Your task to perform on an android device: open app "Adobe Express: Graphic Design" Image 0: 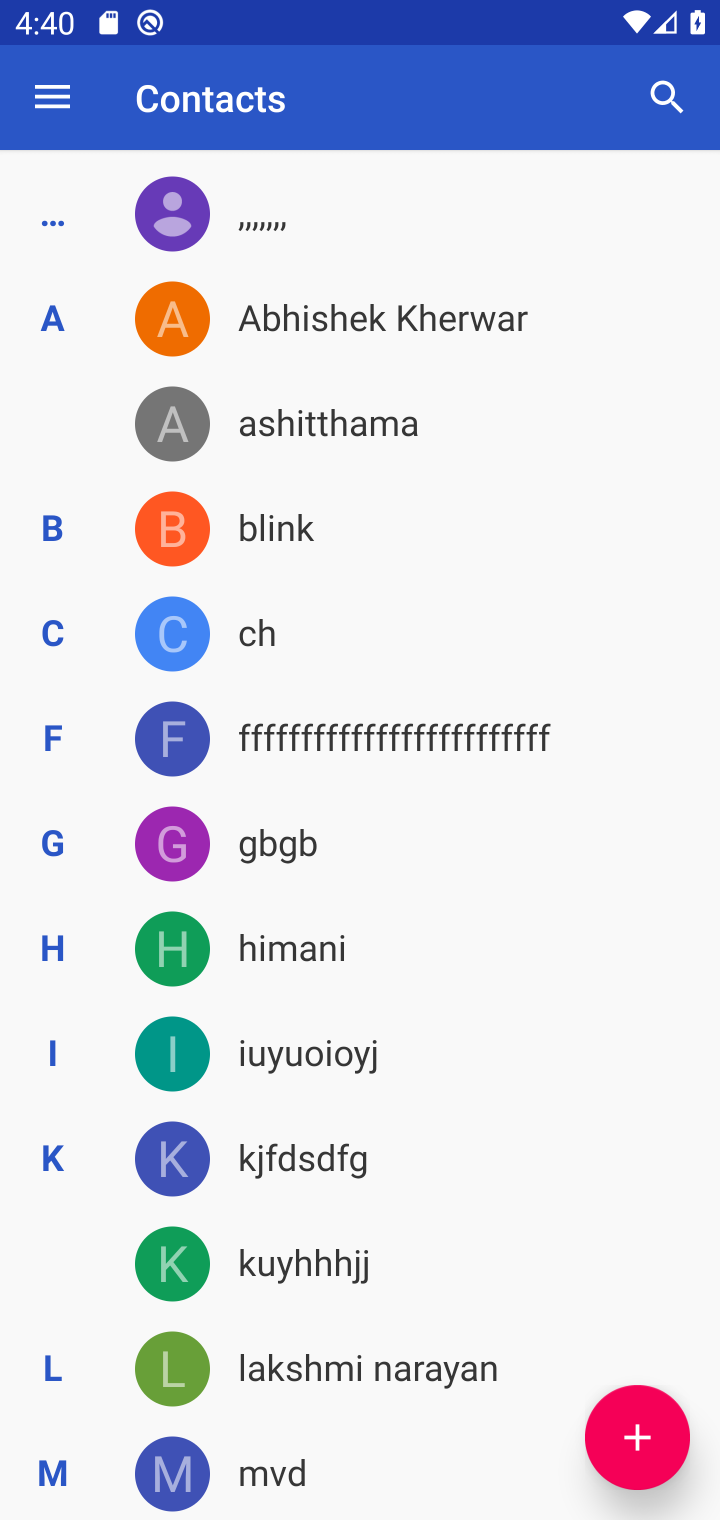
Step 0: press home button
Your task to perform on an android device: open app "Adobe Express: Graphic Design" Image 1: 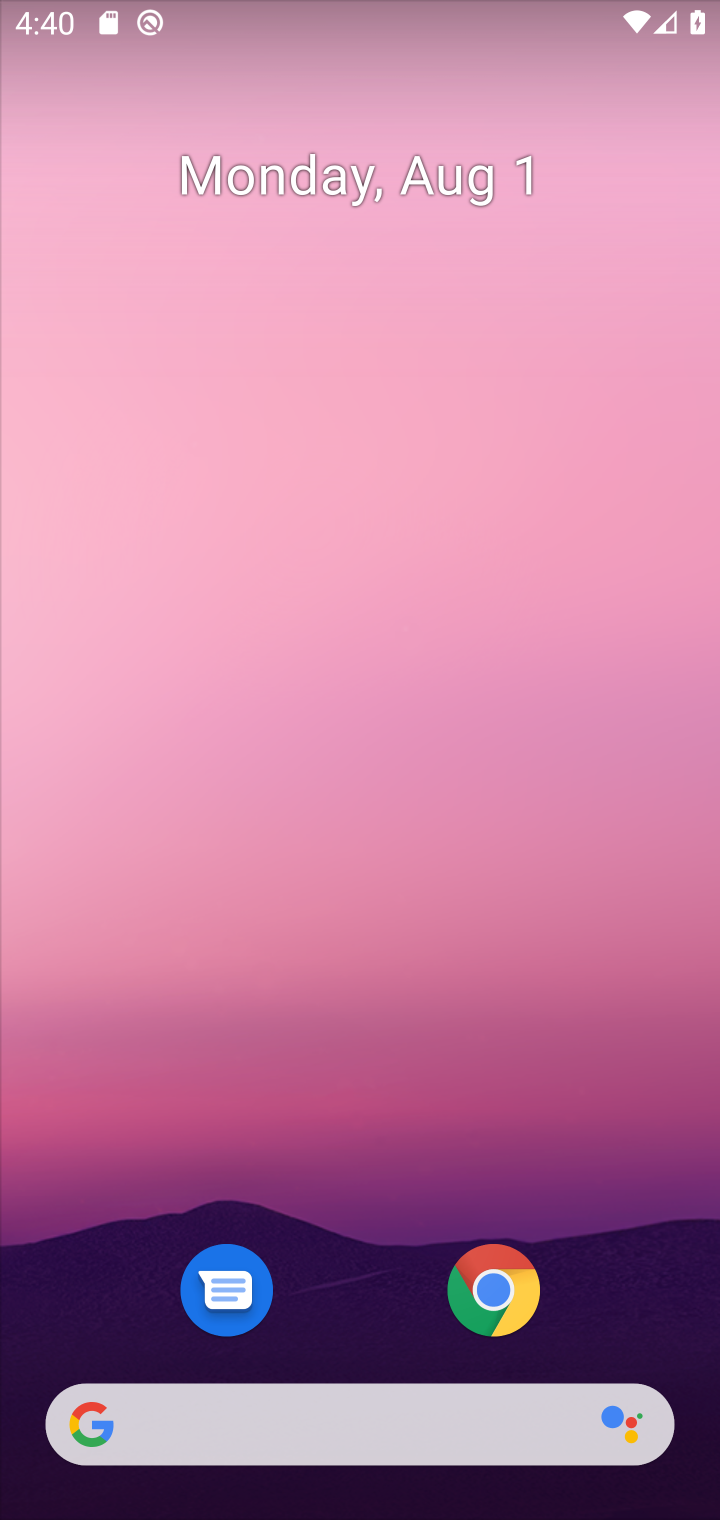
Step 1: drag from (491, 1425) to (478, 563)
Your task to perform on an android device: open app "Adobe Express: Graphic Design" Image 2: 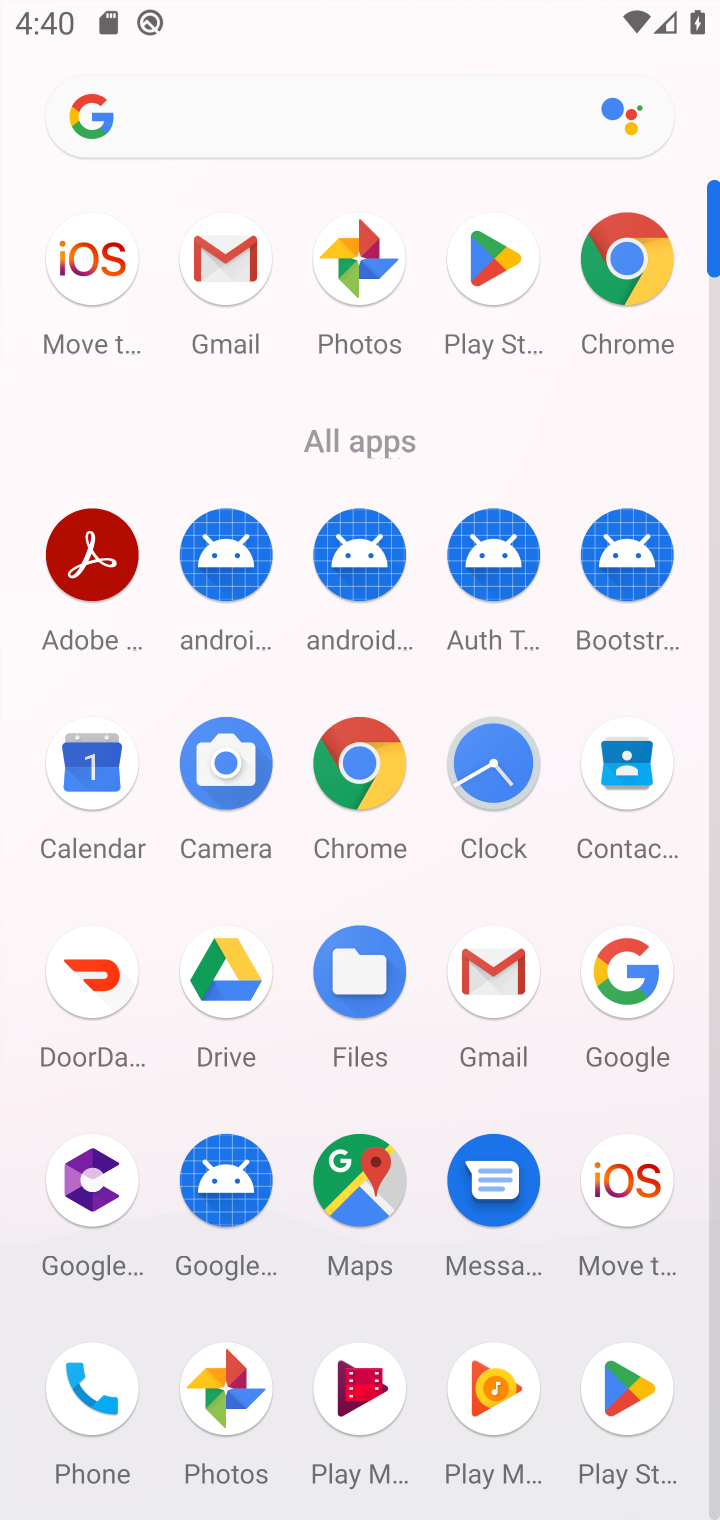
Step 2: click (483, 247)
Your task to perform on an android device: open app "Adobe Express: Graphic Design" Image 3: 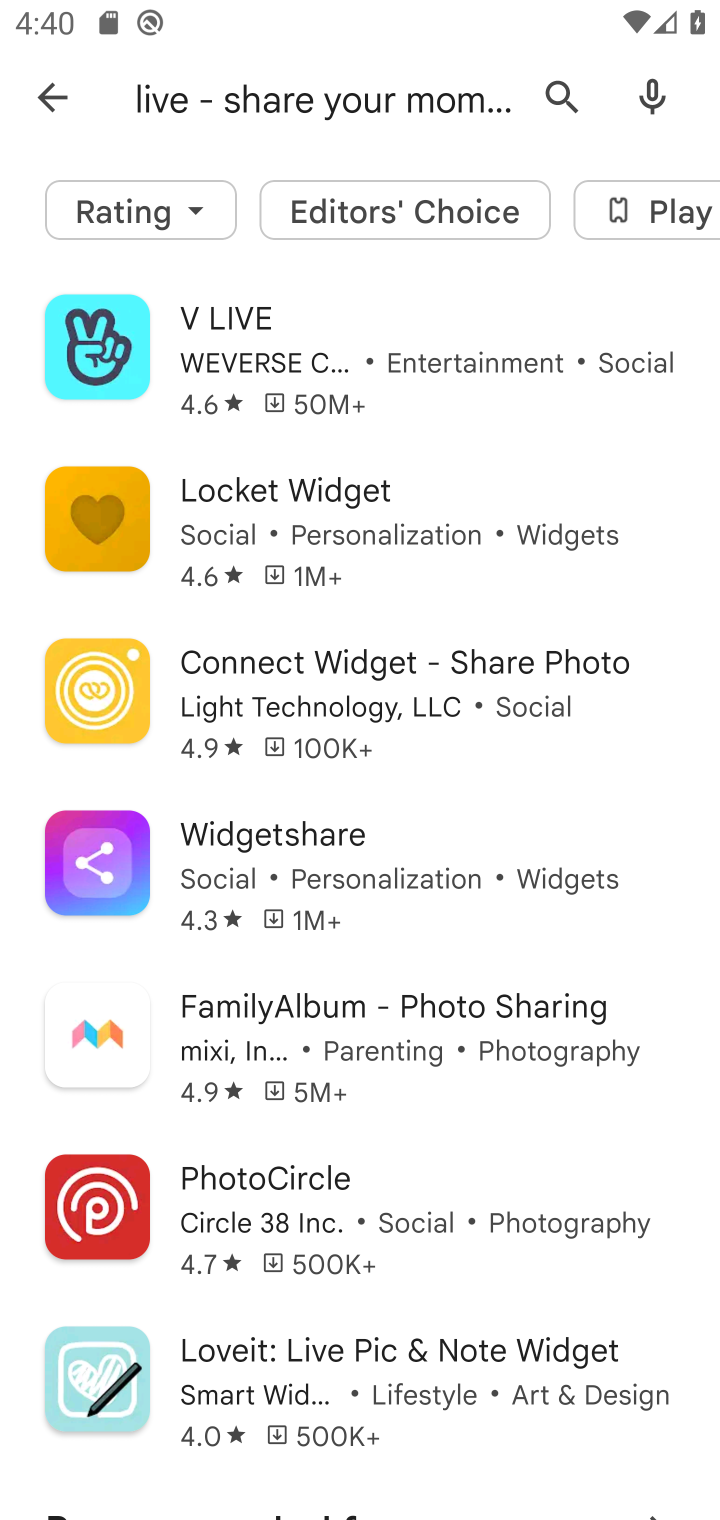
Step 3: click (563, 76)
Your task to perform on an android device: open app "Adobe Express: Graphic Design" Image 4: 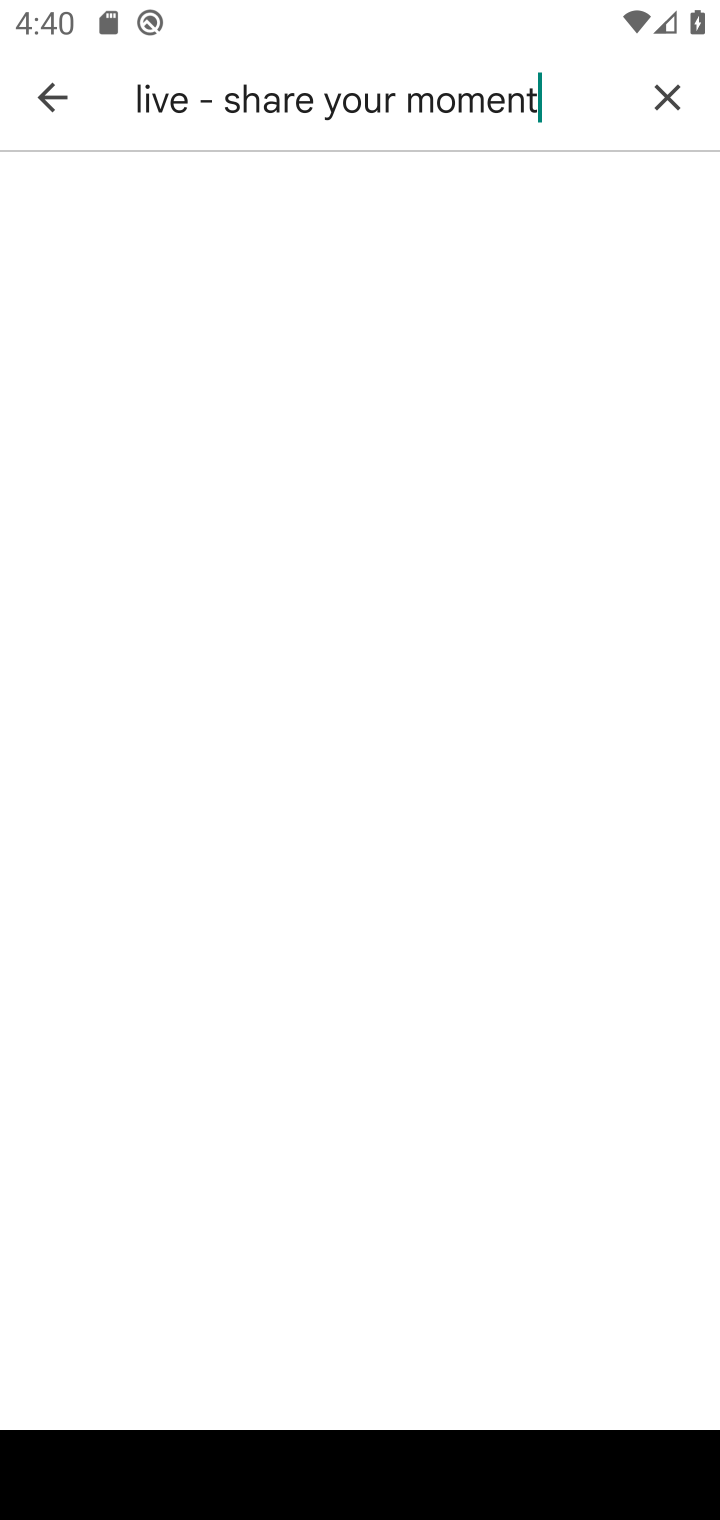
Step 4: click (664, 103)
Your task to perform on an android device: open app "Adobe Express: Graphic Design" Image 5: 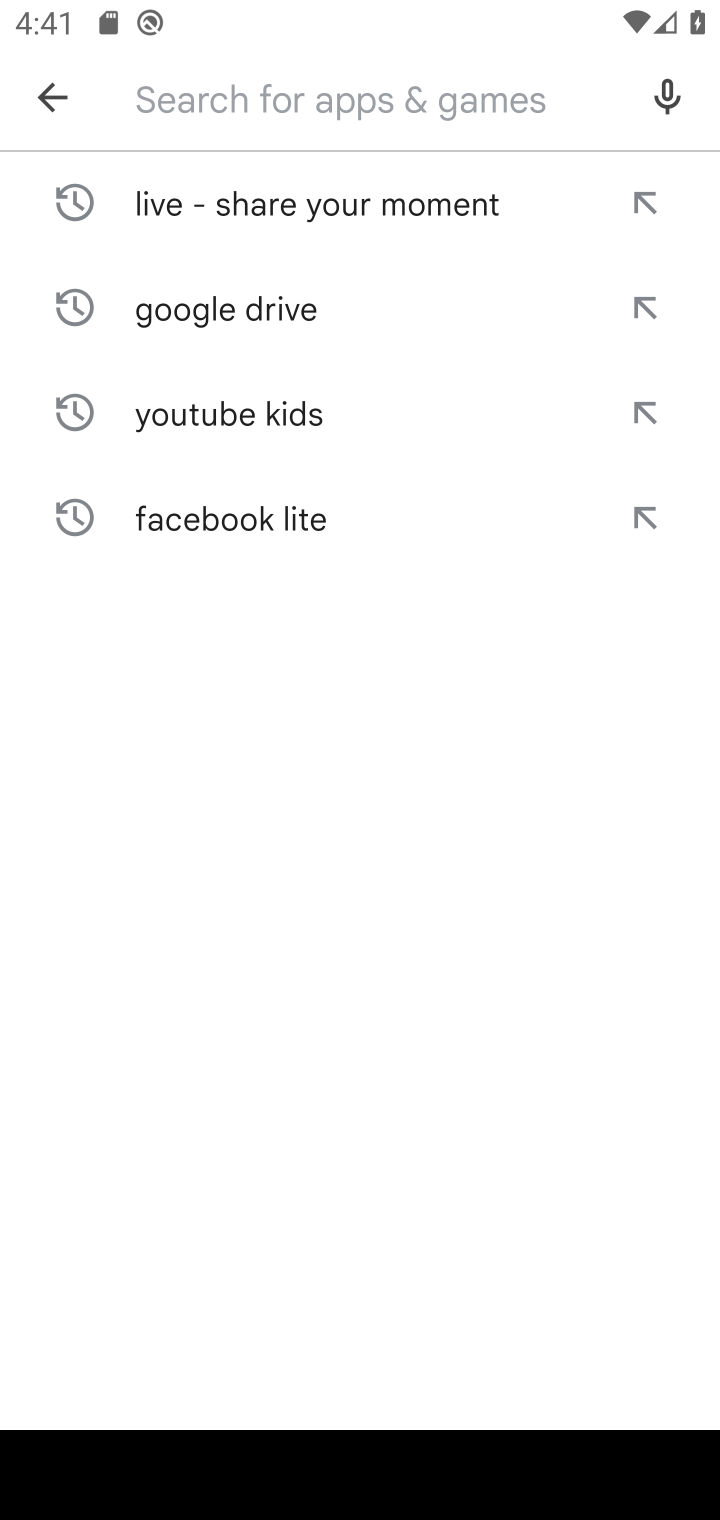
Step 5: type "adobe express: graphic design"
Your task to perform on an android device: open app "Adobe Express: Graphic Design" Image 6: 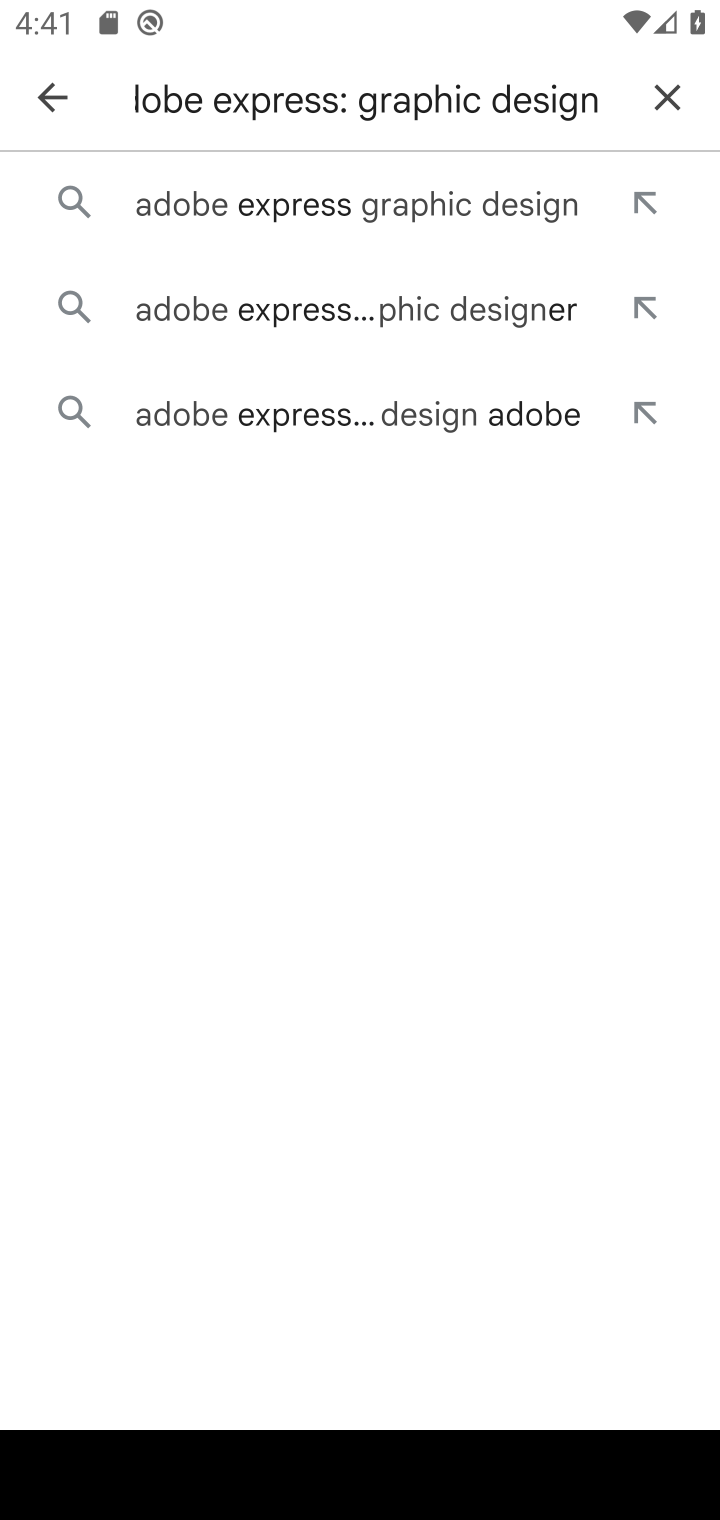
Step 6: click (510, 214)
Your task to perform on an android device: open app "Adobe Express: Graphic Design" Image 7: 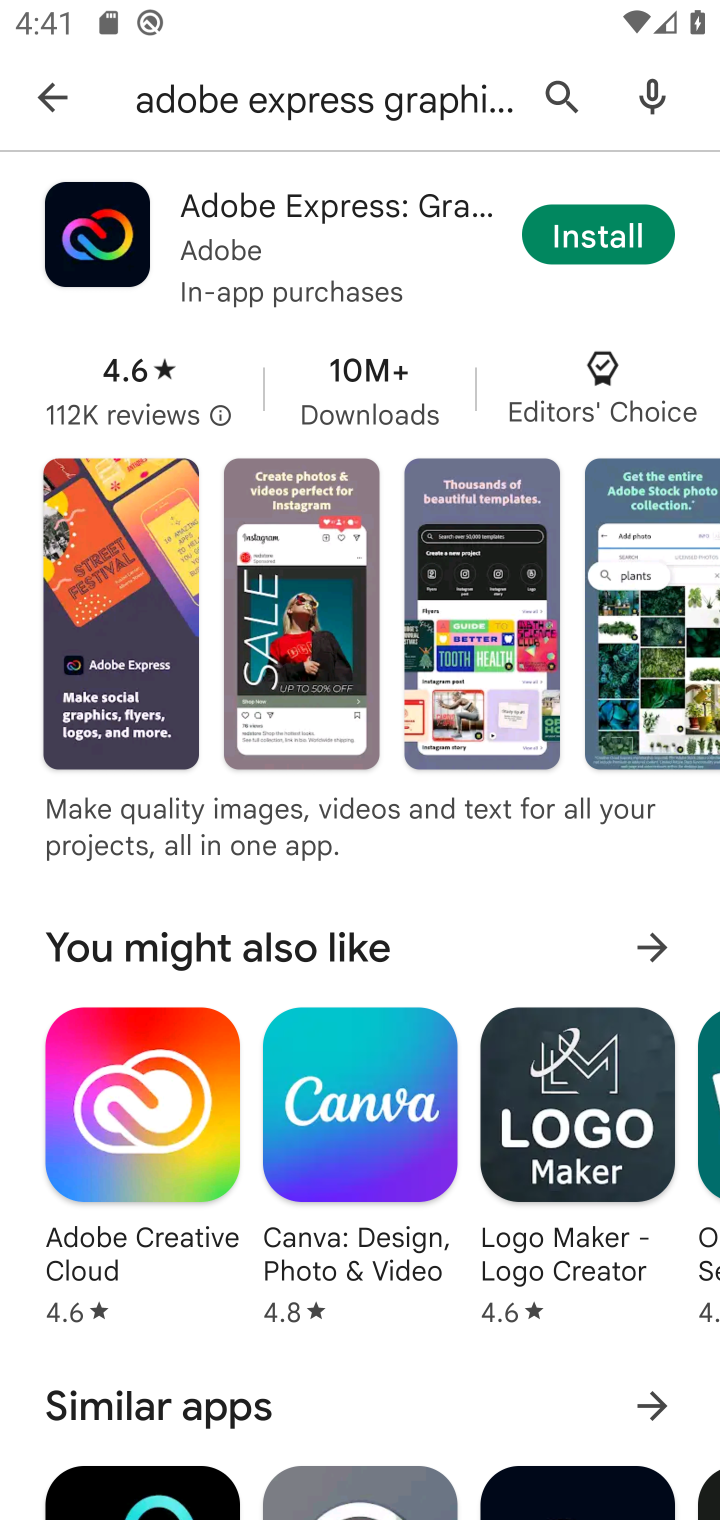
Step 7: task complete